Your task to perform on an android device: Open Google Image 0: 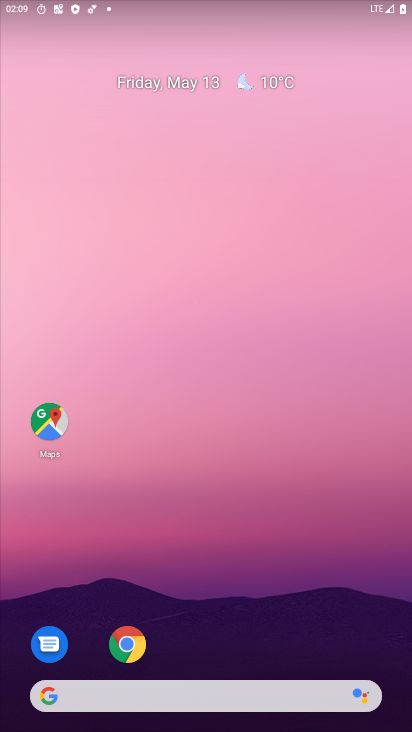
Step 0: drag from (259, 692) to (260, 55)
Your task to perform on an android device: Open Google Image 1: 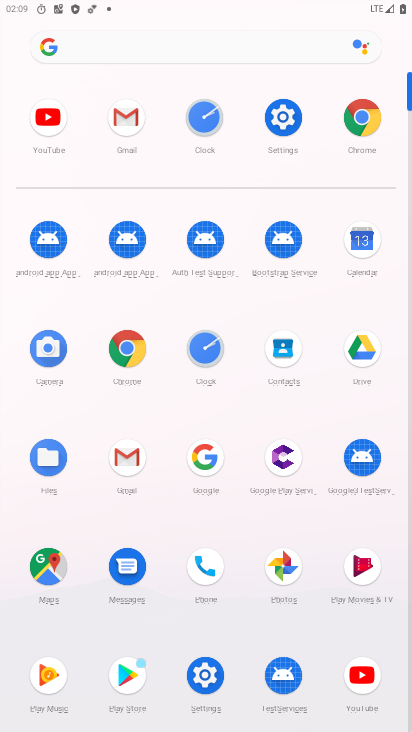
Step 1: click (123, 344)
Your task to perform on an android device: Open Google Image 2: 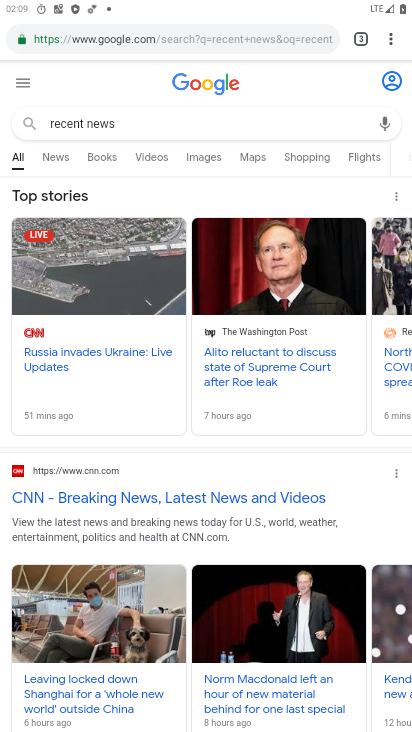
Step 2: click (389, 31)
Your task to perform on an android device: Open Google Image 3: 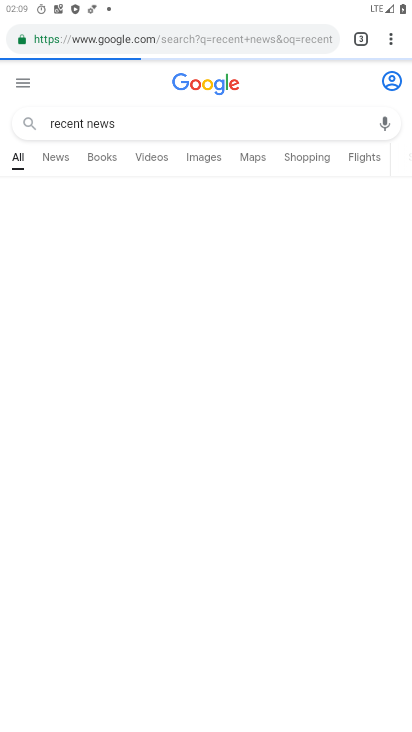
Step 3: click (386, 44)
Your task to perform on an android device: Open Google Image 4: 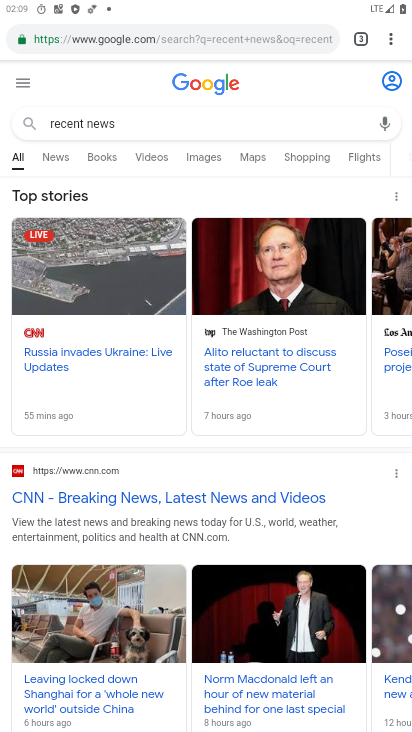
Step 4: click (385, 36)
Your task to perform on an android device: Open Google Image 5: 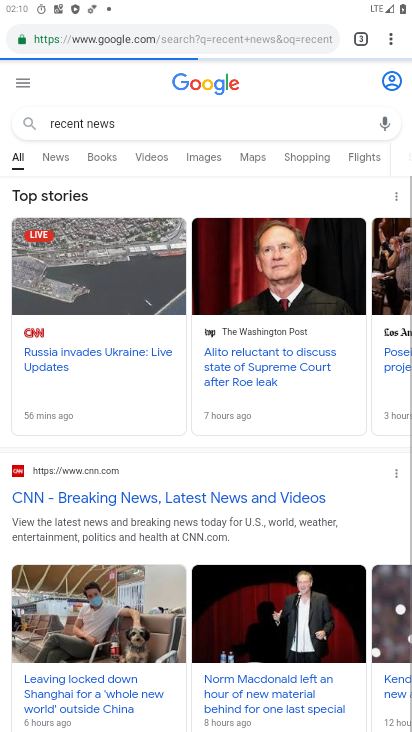
Step 5: task complete